Your task to perform on an android device: allow notifications from all sites in the chrome app Image 0: 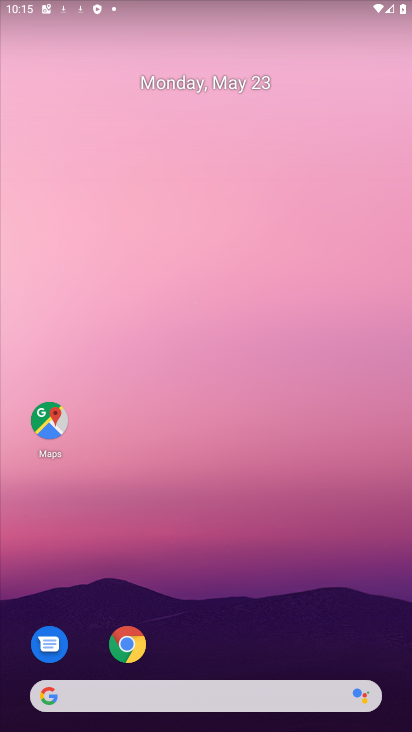
Step 0: drag from (266, 707) to (295, 134)
Your task to perform on an android device: allow notifications from all sites in the chrome app Image 1: 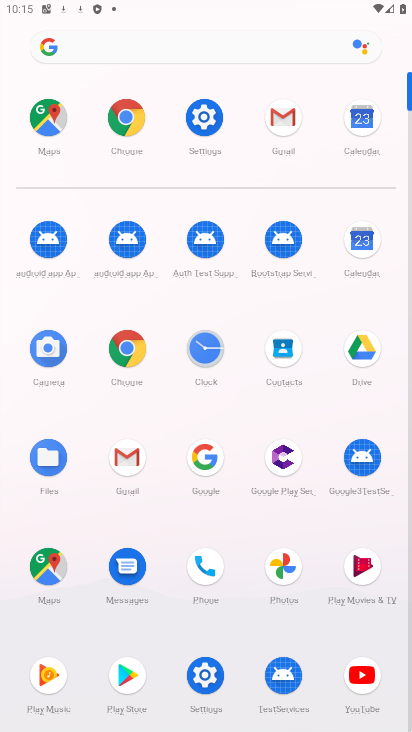
Step 1: click (128, 133)
Your task to perform on an android device: allow notifications from all sites in the chrome app Image 2: 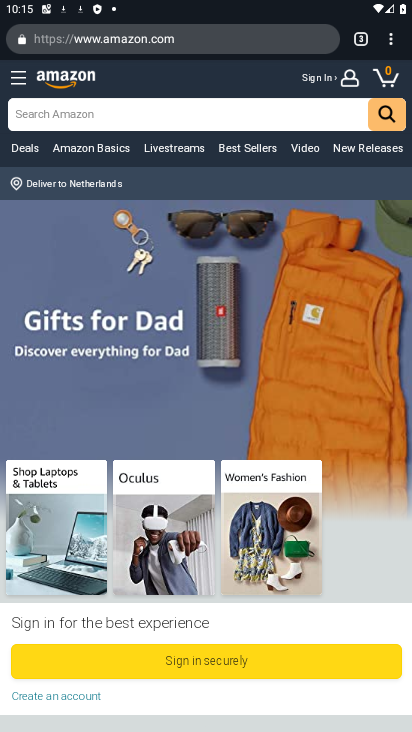
Step 2: click (393, 37)
Your task to perform on an android device: allow notifications from all sites in the chrome app Image 3: 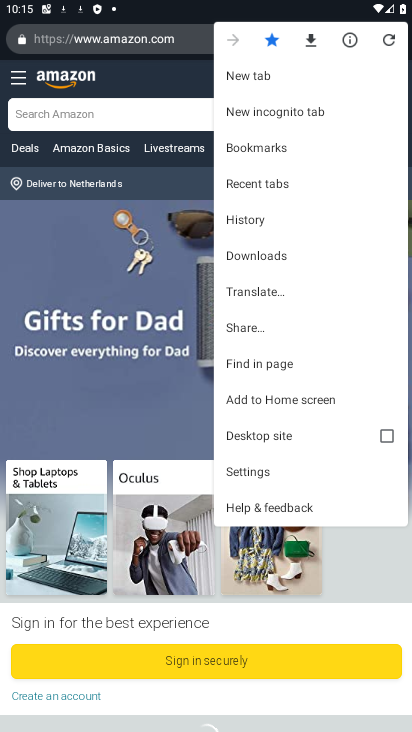
Step 3: click (248, 471)
Your task to perform on an android device: allow notifications from all sites in the chrome app Image 4: 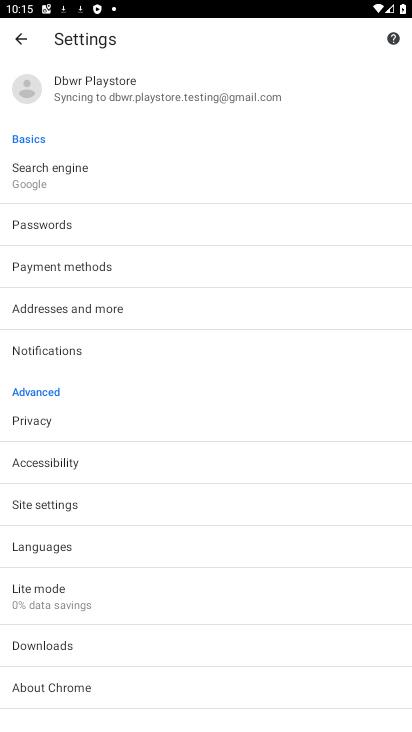
Step 4: click (76, 509)
Your task to perform on an android device: allow notifications from all sites in the chrome app Image 5: 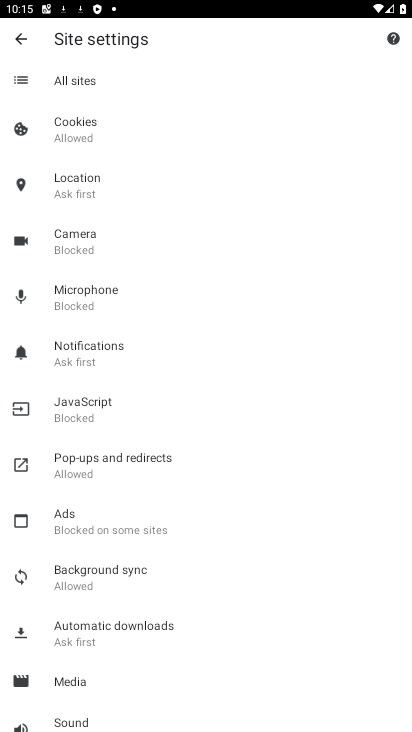
Step 5: click (121, 342)
Your task to perform on an android device: allow notifications from all sites in the chrome app Image 6: 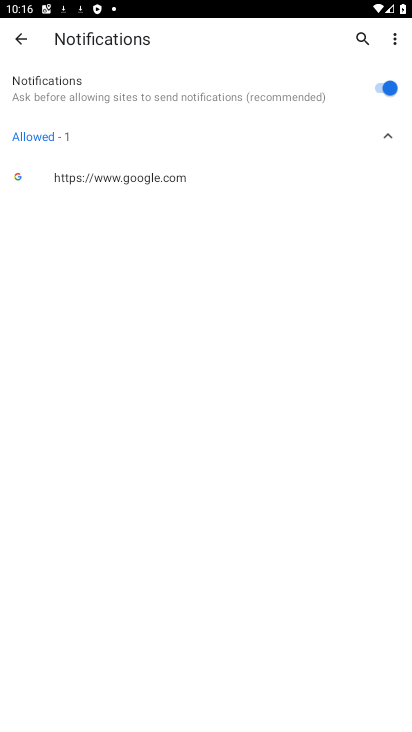
Step 6: click (381, 79)
Your task to perform on an android device: allow notifications from all sites in the chrome app Image 7: 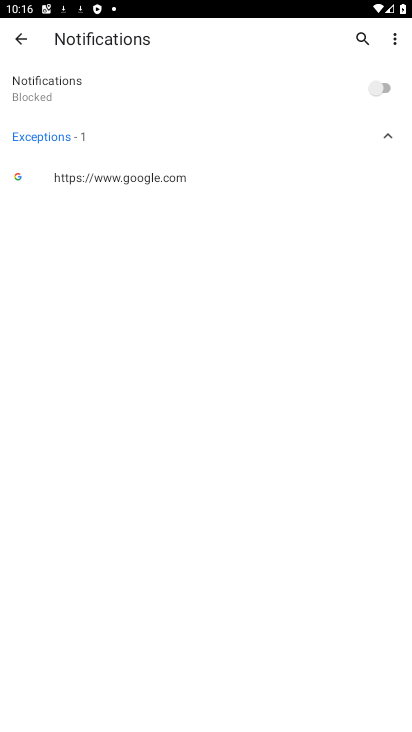
Step 7: click (381, 79)
Your task to perform on an android device: allow notifications from all sites in the chrome app Image 8: 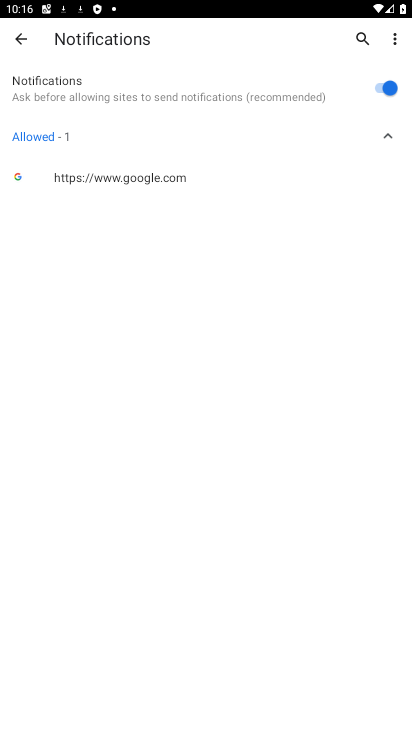
Step 8: task complete